Your task to perform on an android device: Go to Yahoo.com Image 0: 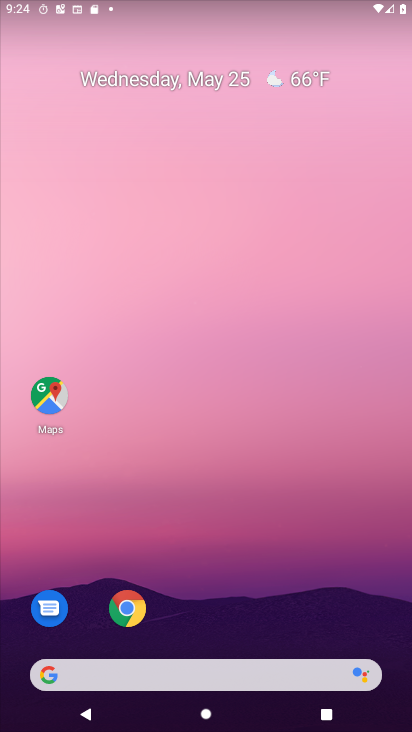
Step 0: click (123, 608)
Your task to perform on an android device: Go to Yahoo.com Image 1: 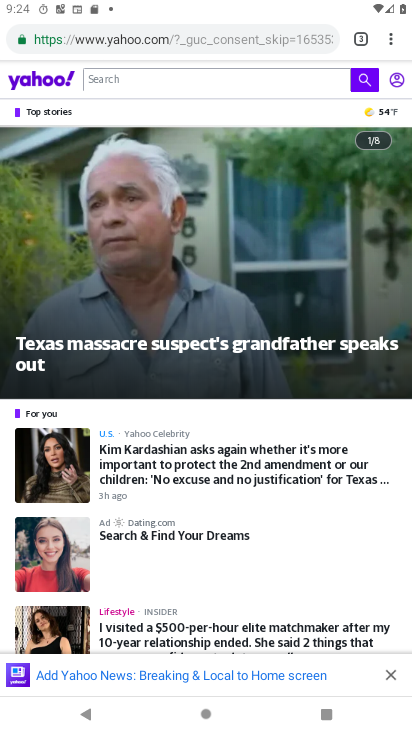
Step 1: task complete